Your task to perform on an android device: Show me the alarms in the clock app Image 0: 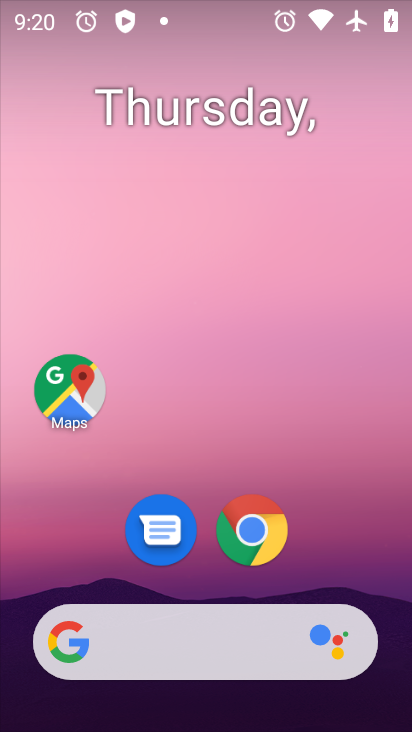
Step 0: drag from (340, 530) to (243, 2)
Your task to perform on an android device: Show me the alarms in the clock app Image 1: 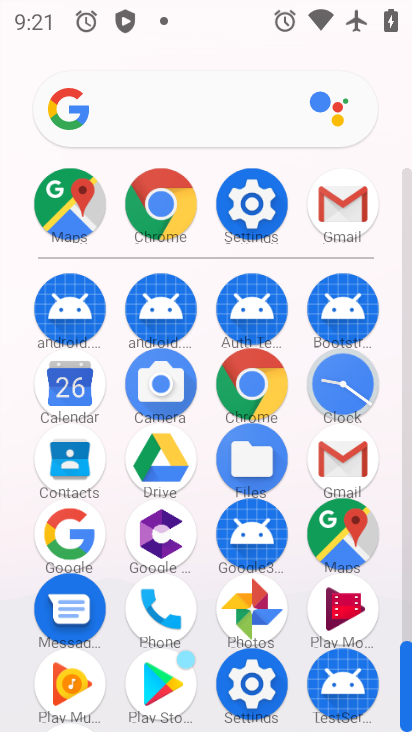
Step 1: drag from (17, 596) to (8, 262)
Your task to perform on an android device: Show me the alarms in the clock app Image 2: 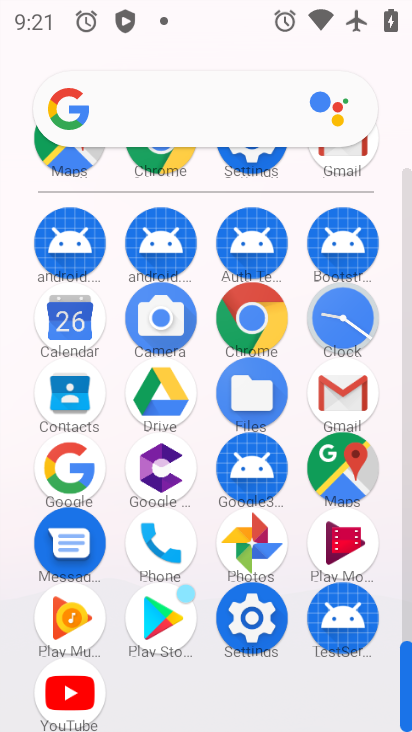
Step 2: click (340, 314)
Your task to perform on an android device: Show me the alarms in the clock app Image 3: 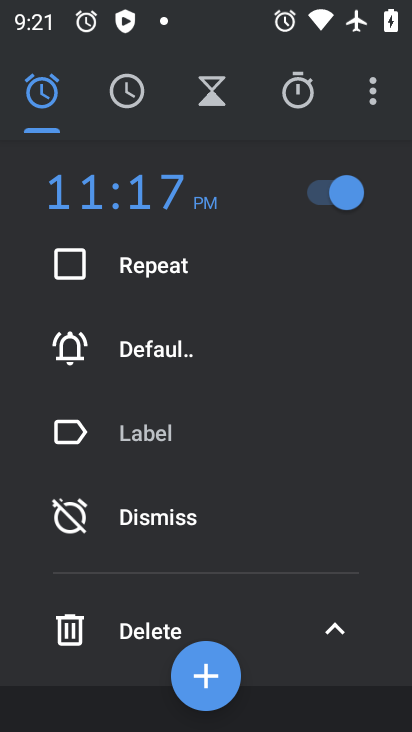
Step 3: task complete